Your task to perform on an android device: allow notifications from all sites in the chrome app Image 0: 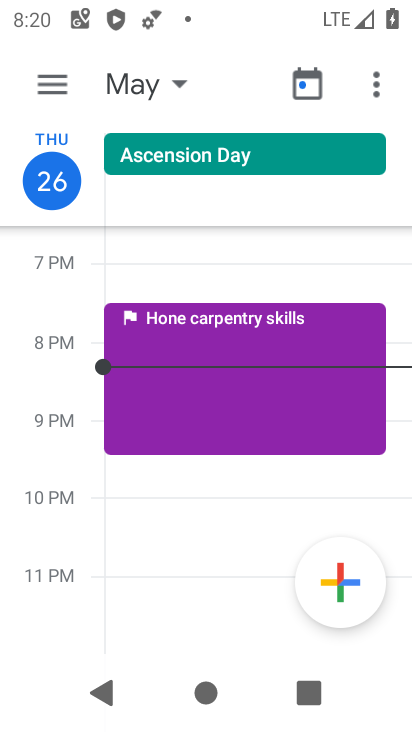
Step 0: press home button
Your task to perform on an android device: allow notifications from all sites in the chrome app Image 1: 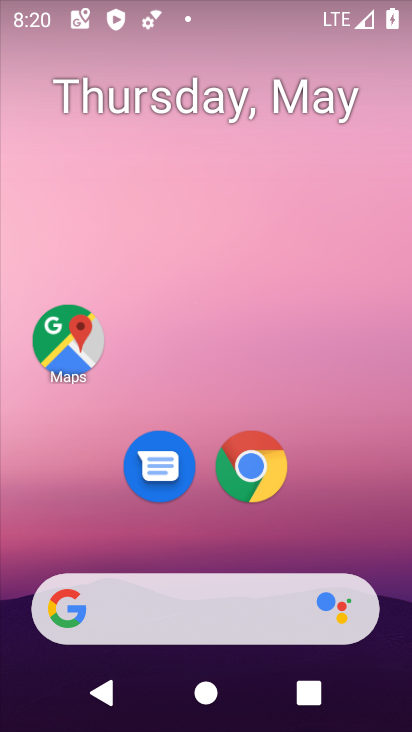
Step 1: click (269, 465)
Your task to perform on an android device: allow notifications from all sites in the chrome app Image 2: 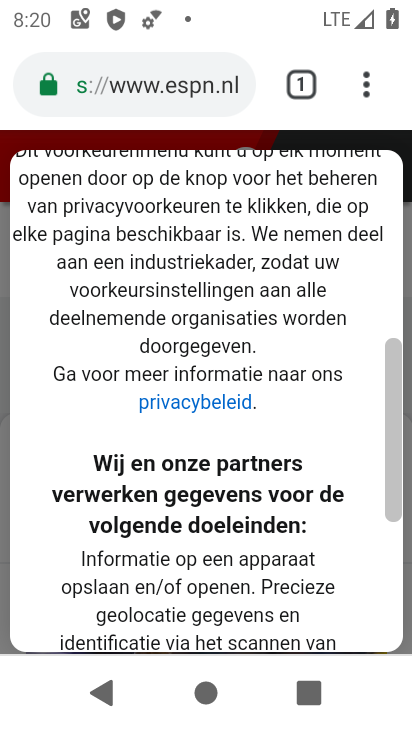
Step 2: click (372, 85)
Your task to perform on an android device: allow notifications from all sites in the chrome app Image 3: 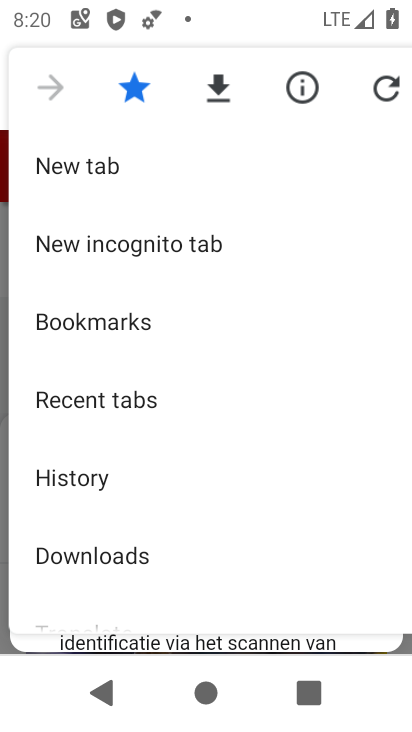
Step 3: drag from (211, 540) to (254, 154)
Your task to perform on an android device: allow notifications from all sites in the chrome app Image 4: 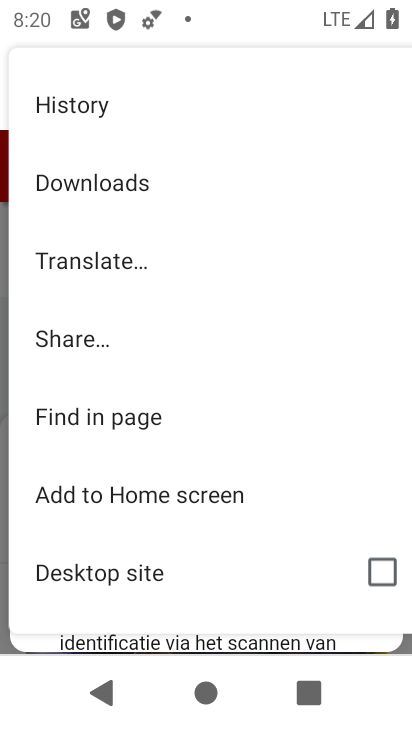
Step 4: drag from (277, 556) to (291, 215)
Your task to perform on an android device: allow notifications from all sites in the chrome app Image 5: 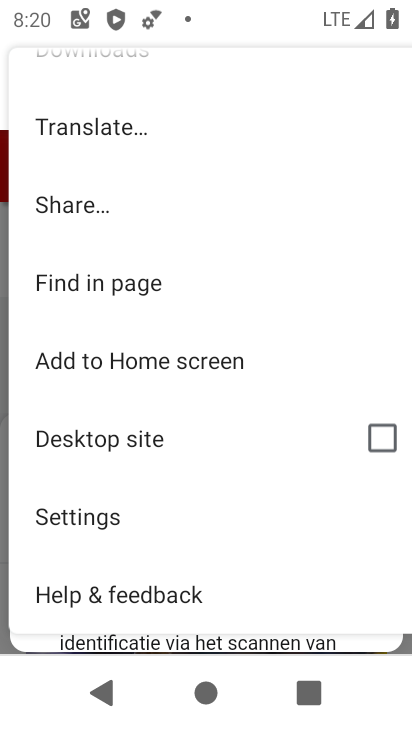
Step 5: click (49, 529)
Your task to perform on an android device: allow notifications from all sites in the chrome app Image 6: 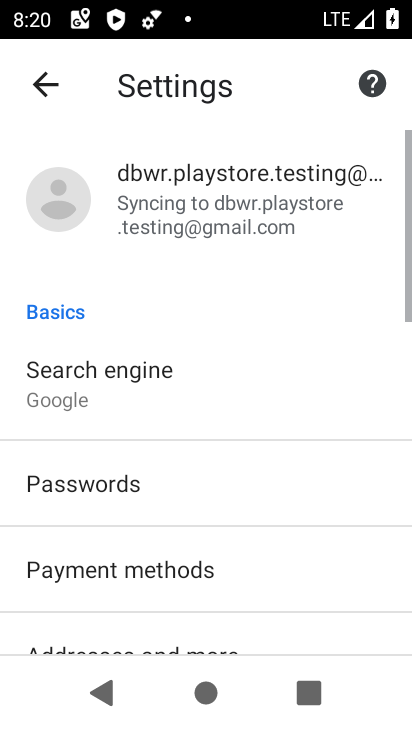
Step 6: drag from (156, 547) to (176, 51)
Your task to perform on an android device: allow notifications from all sites in the chrome app Image 7: 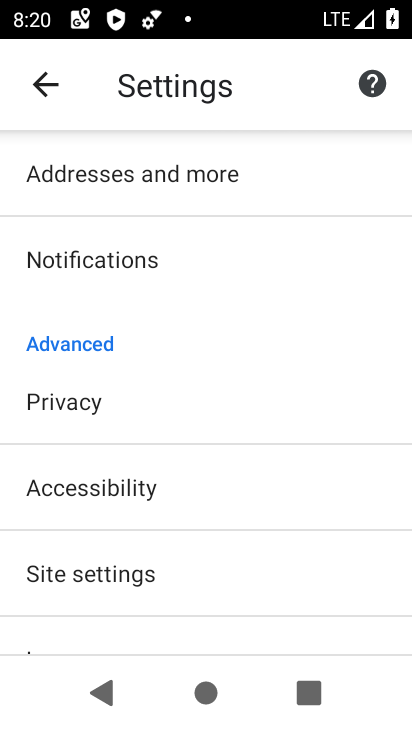
Step 7: drag from (133, 495) to (170, 190)
Your task to perform on an android device: allow notifications from all sites in the chrome app Image 8: 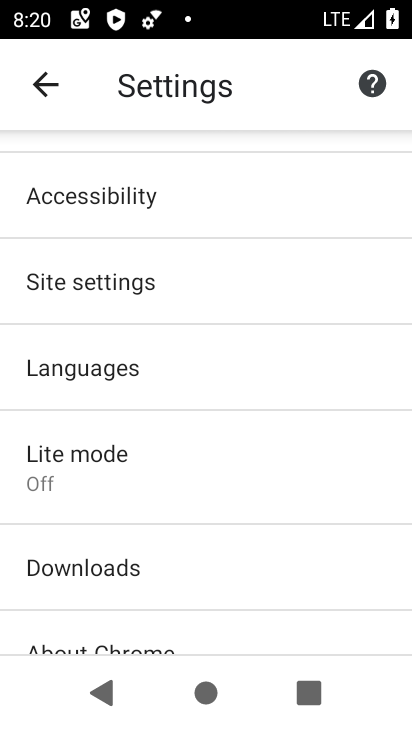
Step 8: click (101, 279)
Your task to perform on an android device: allow notifications from all sites in the chrome app Image 9: 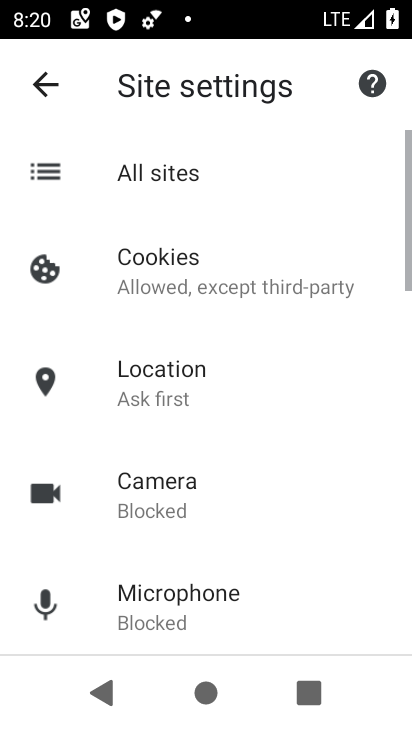
Step 9: drag from (225, 507) to (246, 183)
Your task to perform on an android device: allow notifications from all sites in the chrome app Image 10: 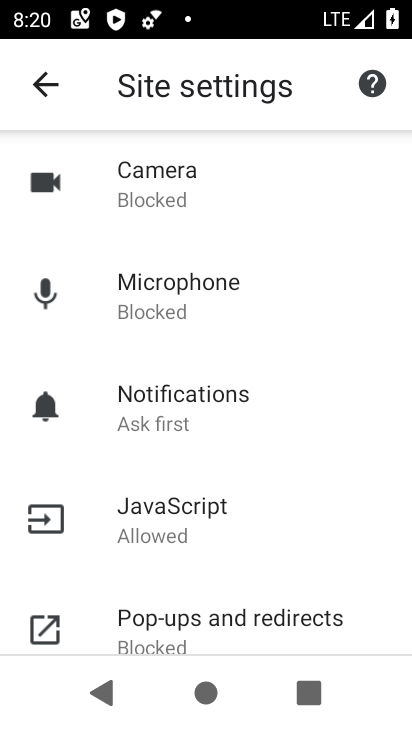
Step 10: click (159, 404)
Your task to perform on an android device: allow notifications from all sites in the chrome app Image 11: 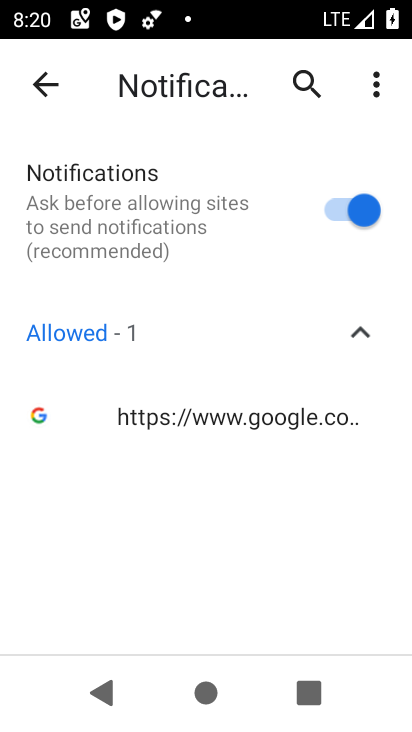
Step 11: task complete